Your task to perform on an android device: Go to display settings Image 0: 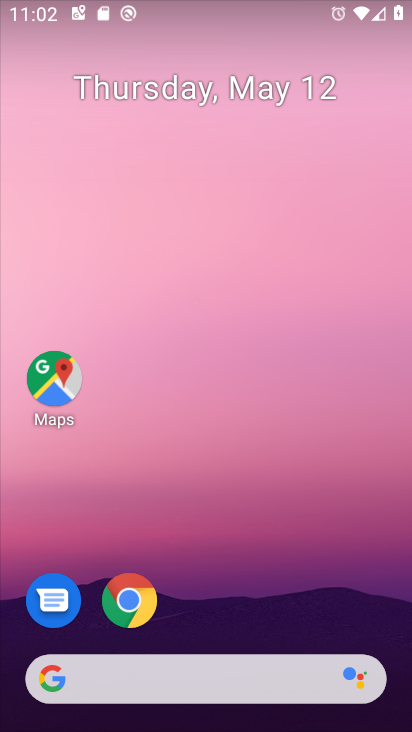
Step 0: drag from (175, 539) to (93, 237)
Your task to perform on an android device: Go to display settings Image 1: 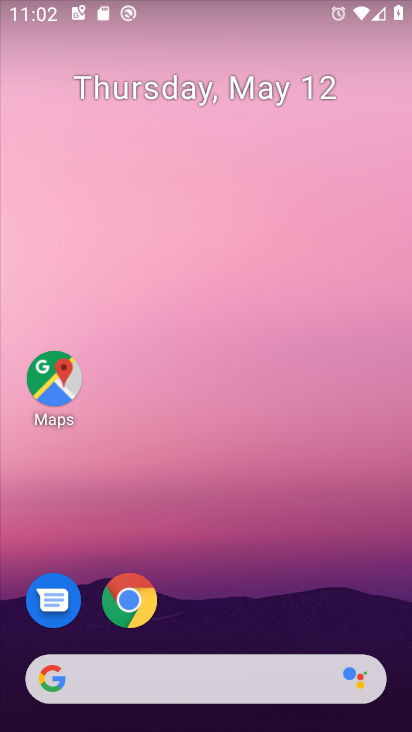
Step 1: drag from (291, 598) to (85, 41)
Your task to perform on an android device: Go to display settings Image 2: 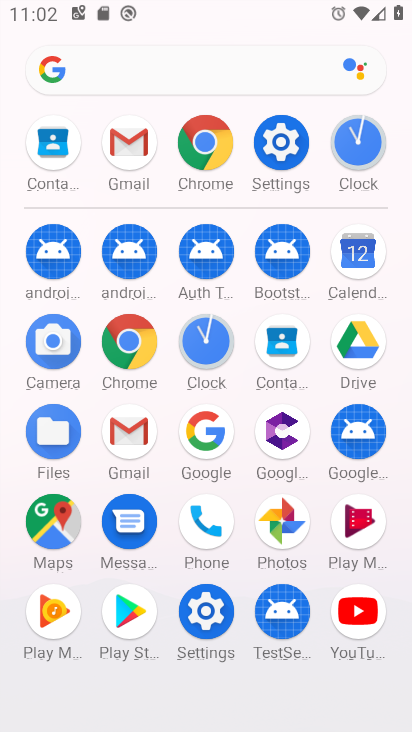
Step 2: click (280, 148)
Your task to perform on an android device: Go to display settings Image 3: 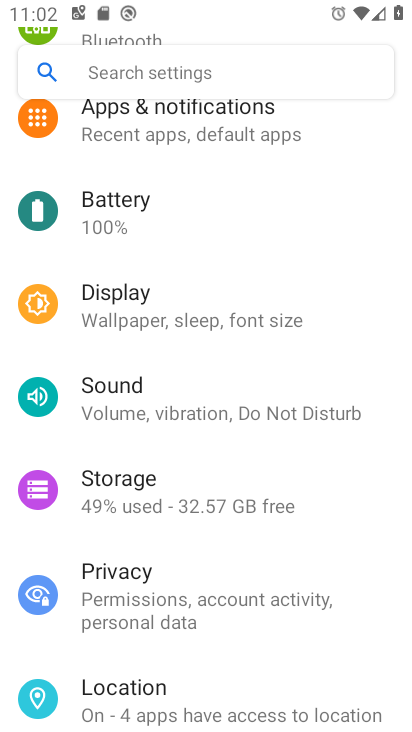
Step 3: click (162, 309)
Your task to perform on an android device: Go to display settings Image 4: 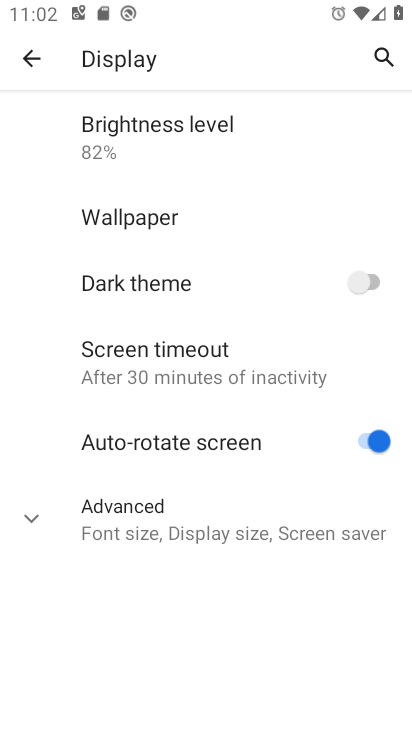
Step 4: click (166, 507)
Your task to perform on an android device: Go to display settings Image 5: 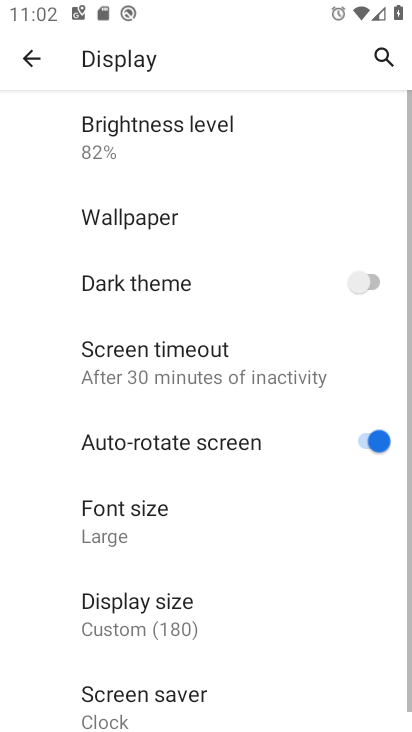
Step 5: task complete